Your task to perform on an android device: Open display settings Image 0: 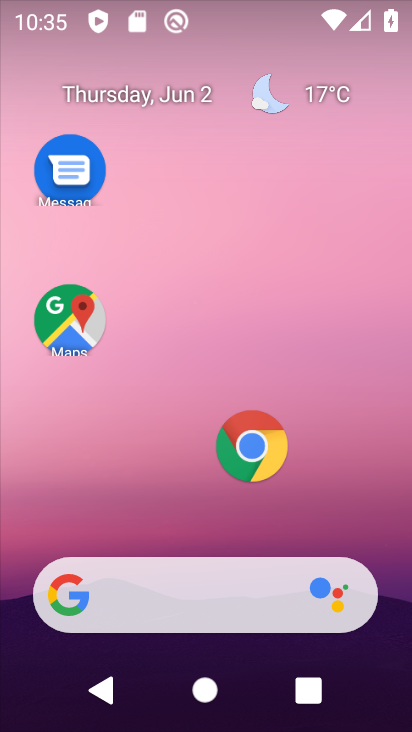
Step 0: drag from (379, 502) to (341, 130)
Your task to perform on an android device: Open display settings Image 1: 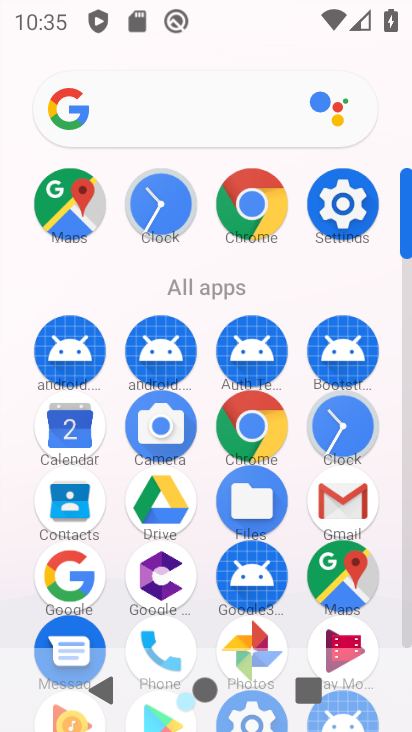
Step 1: click (344, 200)
Your task to perform on an android device: Open display settings Image 2: 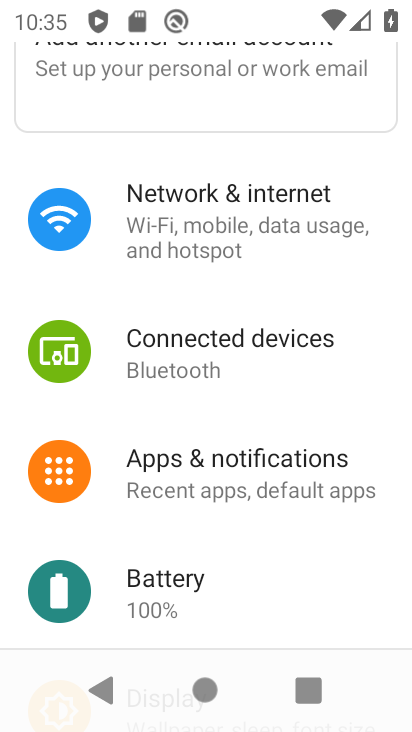
Step 2: drag from (273, 585) to (283, 200)
Your task to perform on an android device: Open display settings Image 3: 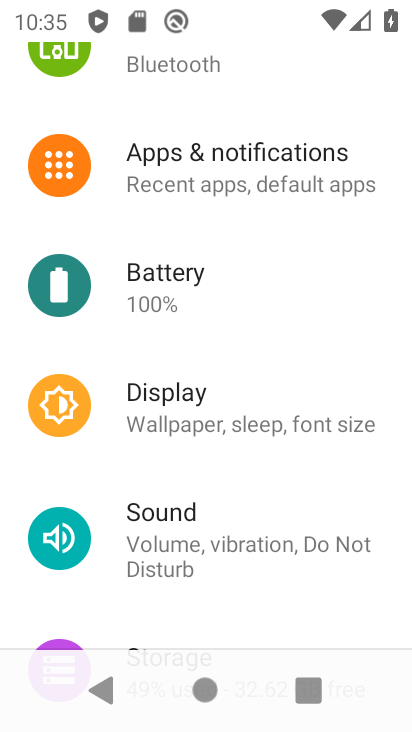
Step 3: click (261, 397)
Your task to perform on an android device: Open display settings Image 4: 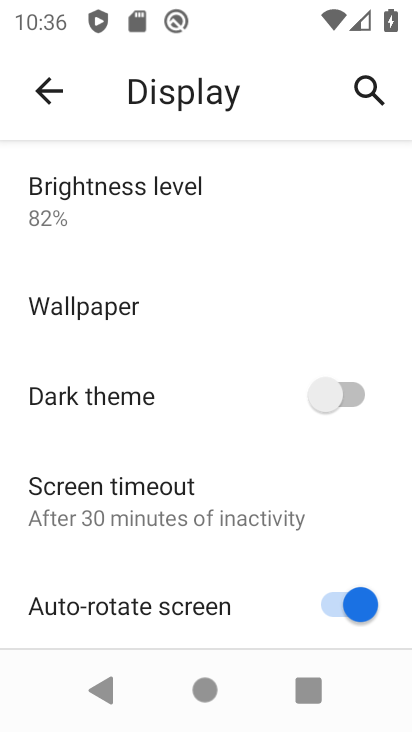
Step 4: task complete